Your task to perform on an android device: Open the Play Movies app and select the watchlist tab. Image 0: 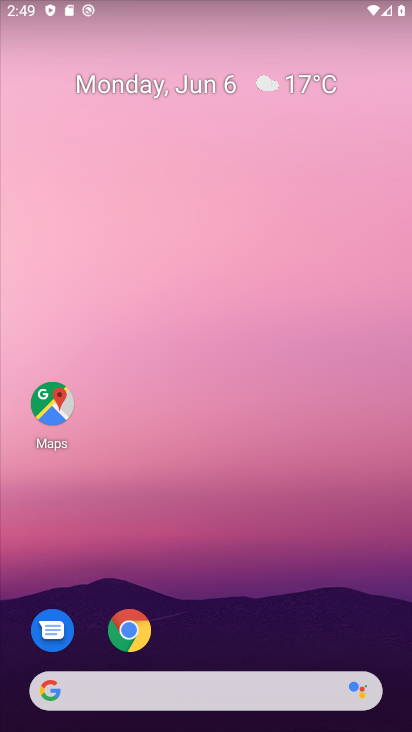
Step 0: drag from (213, 647) to (216, 318)
Your task to perform on an android device: Open the Play Movies app and select the watchlist tab. Image 1: 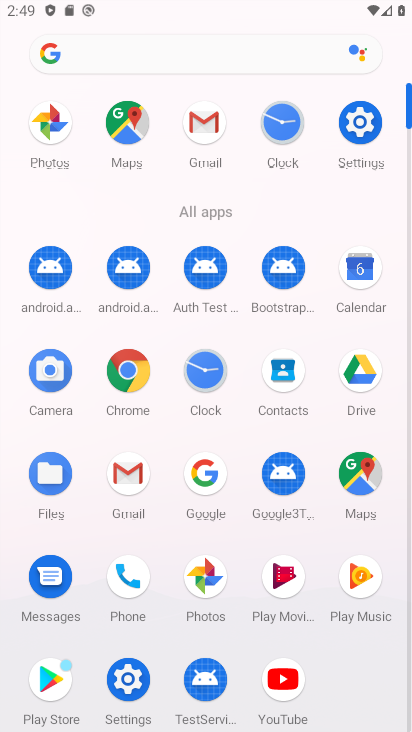
Step 1: click (275, 580)
Your task to perform on an android device: Open the Play Movies app and select the watchlist tab. Image 2: 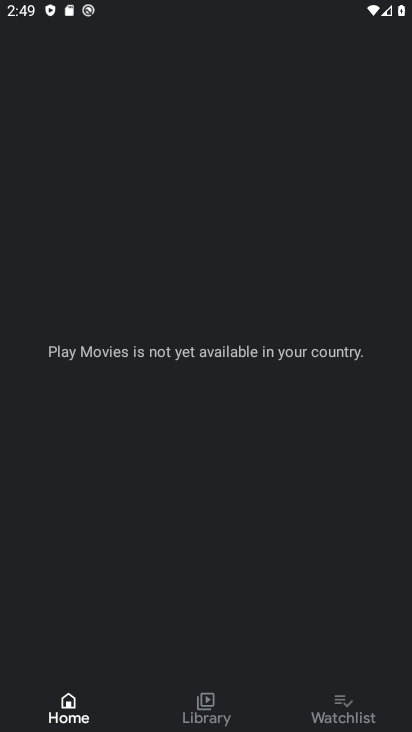
Step 2: click (342, 696)
Your task to perform on an android device: Open the Play Movies app and select the watchlist tab. Image 3: 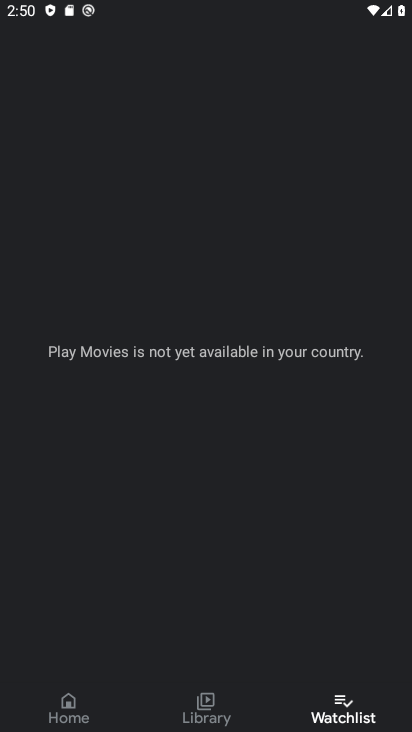
Step 3: task complete